Your task to perform on an android device: Open Google Maps Image 0: 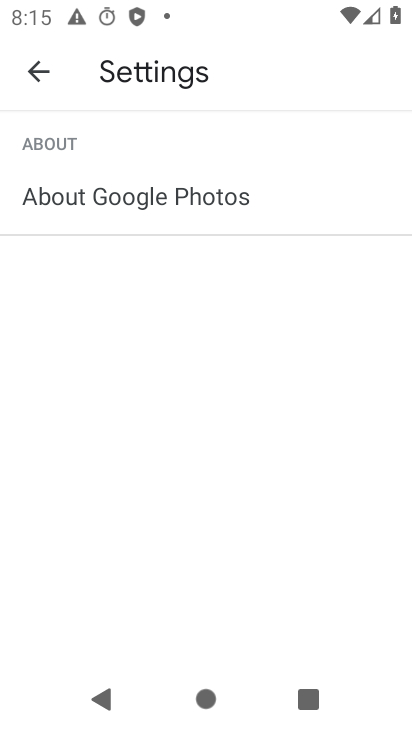
Step 0: press home button
Your task to perform on an android device: Open Google Maps Image 1: 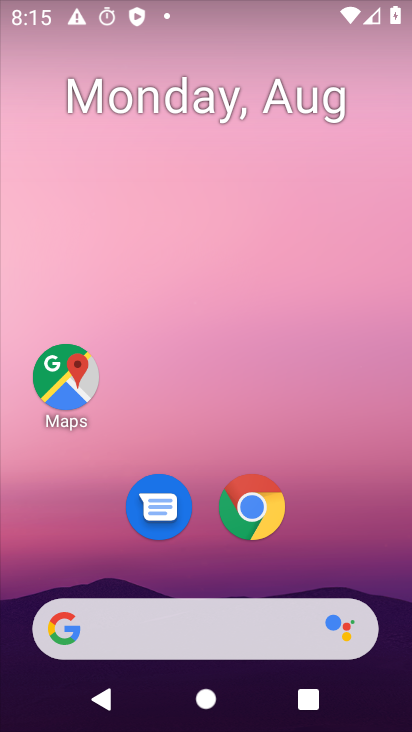
Step 1: click (72, 384)
Your task to perform on an android device: Open Google Maps Image 2: 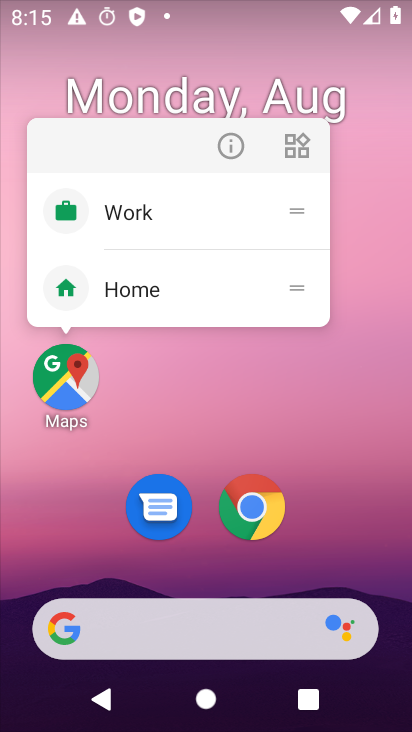
Step 2: click (55, 378)
Your task to perform on an android device: Open Google Maps Image 3: 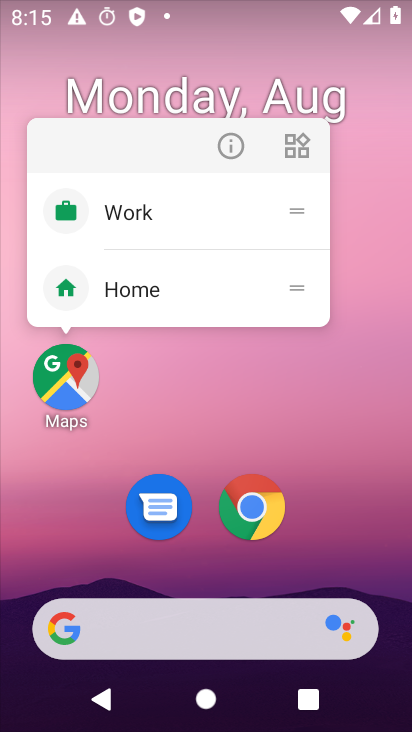
Step 3: click (66, 383)
Your task to perform on an android device: Open Google Maps Image 4: 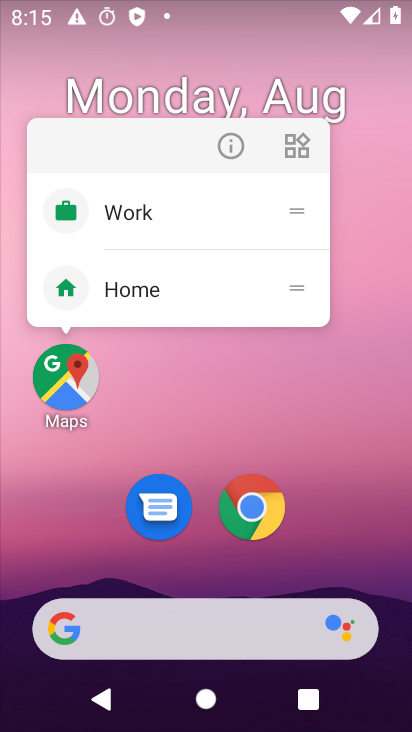
Step 4: click (66, 383)
Your task to perform on an android device: Open Google Maps Image 5: 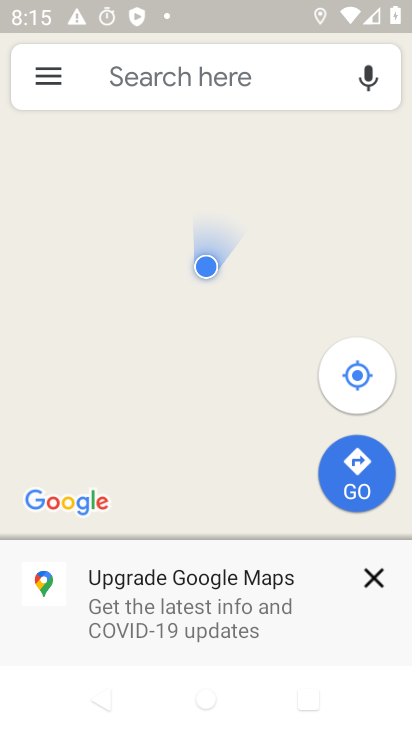
Step 5: click (374, 577)
Your task to perform on an android device: Open Google Maps Image 6: 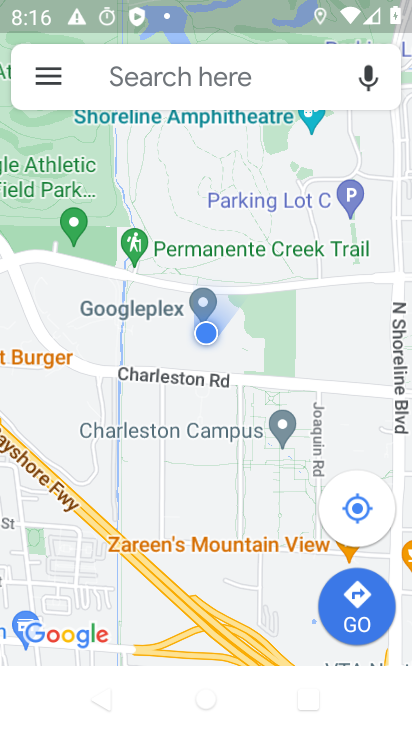
Step 6: task complete